Your task to perform on an android device: turn smart compose on in the gmail app Image 0: 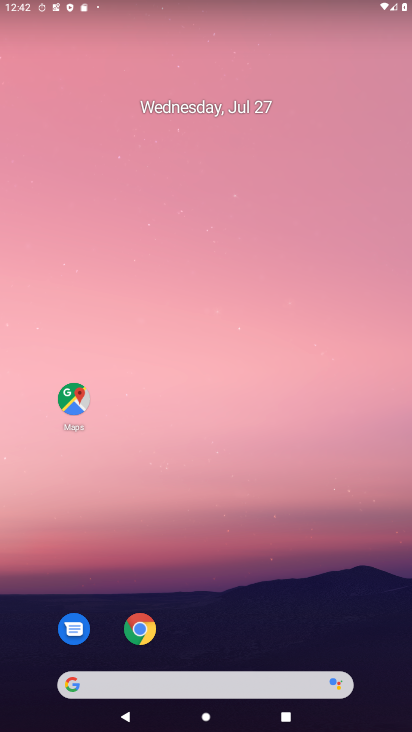
Step 0: drag from (357, 631) to (203, 26)
Your task to perform on an android device: turn smart compose on in the gmail app Image 1: 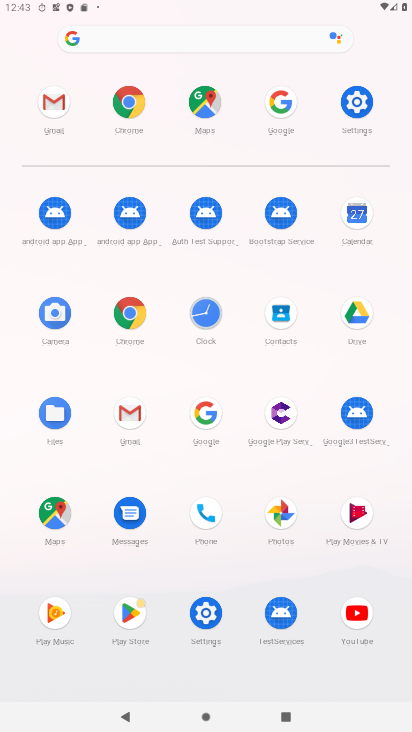
Step 1: click (125, 397)
Your task to perform on an android device: turn smart compose on in the gmail app Image 2: 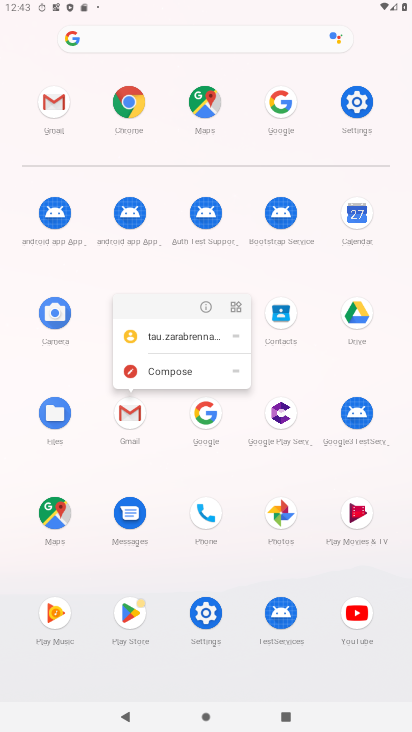
Step 2: click (131, 414)
Your task to perform on an android device: turn smart compose on in the gmail app Image 3: 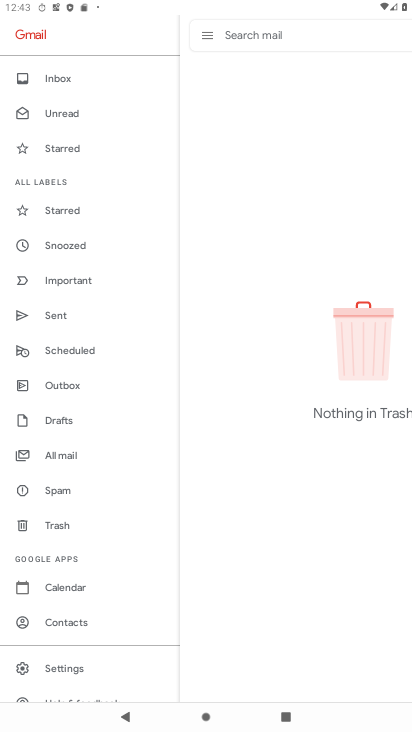
Step 3: click (76, 661)
Your task to perform on an android device: turn smart compose on in the gmail app Image 4: 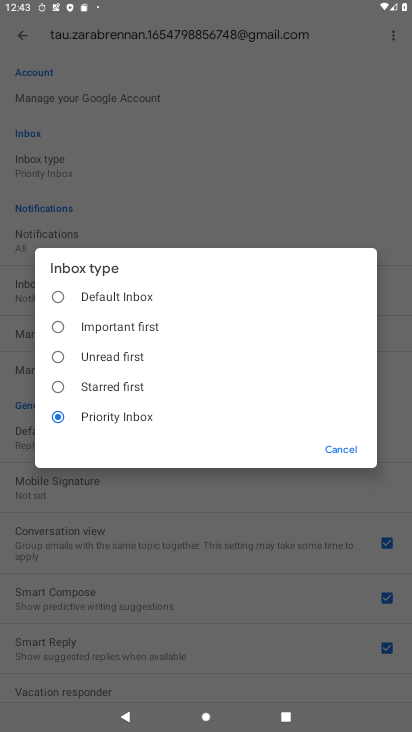
Step 4: click (347, 447)
Your task to perform on an android device: turn smart compose on in the gmail app Image 5: 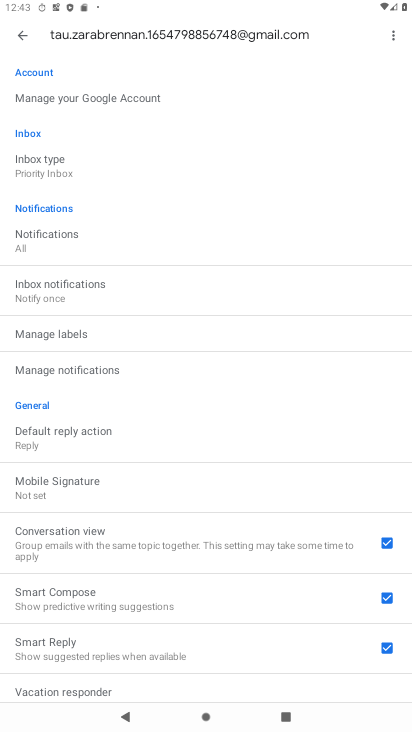
Step 5: task complete